Your task to perform on an android device: turn smart compose on in the gmail app Image 0: 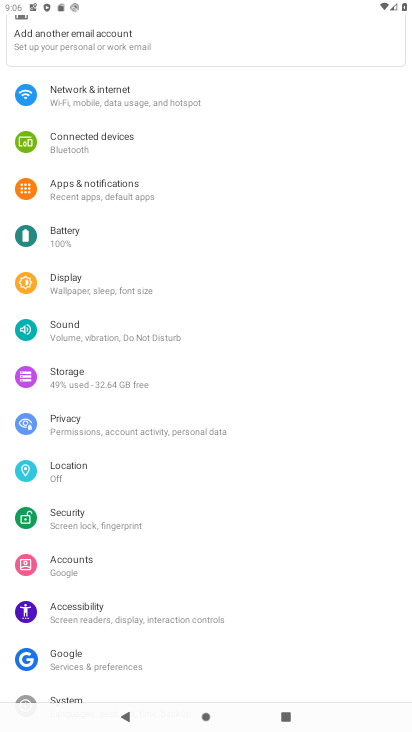
Step 0: press home button
Your task to perform on an android device: turn smart compose on in the gmail app Image 1: 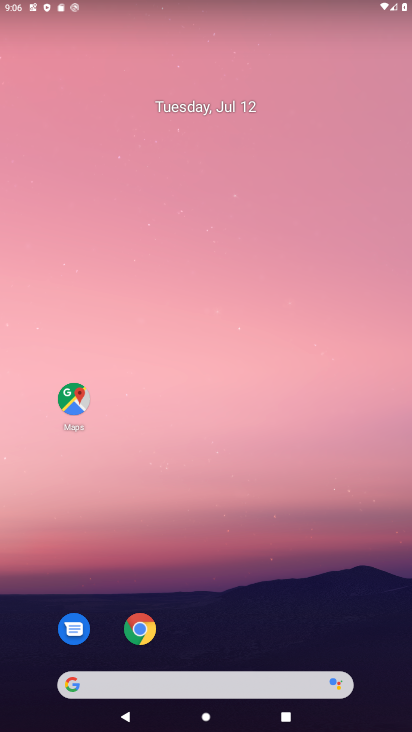
Step 1: drag from (172, 684) to (227, 147)
Your task to perform on an android device: turn smart compose on in the gmail app Image 2: 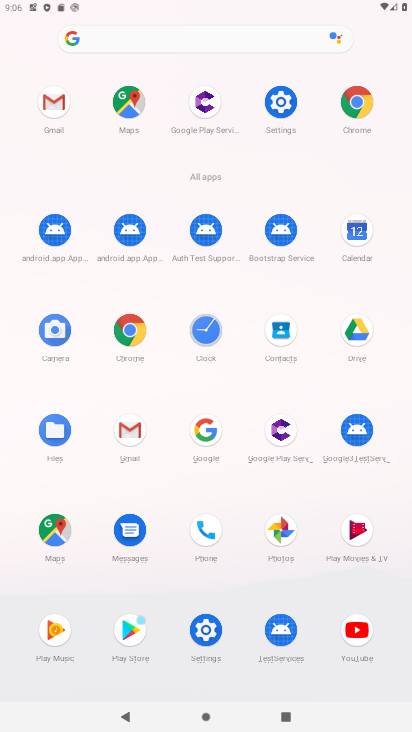
Step 2: click (126, 433)
Your task to perform on an android device: turn smart compose on in the gmail app Image 3: 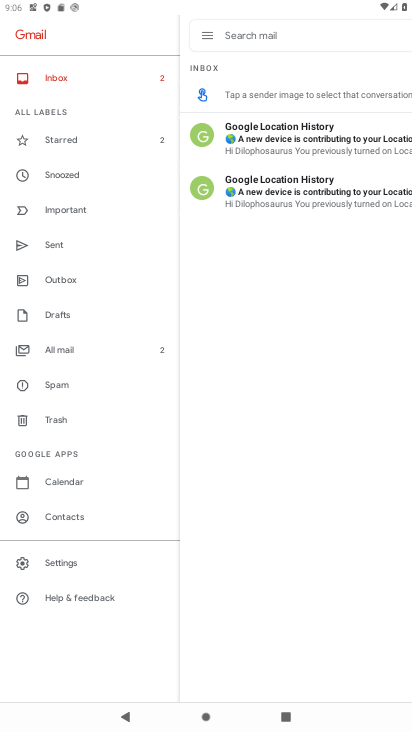
Step 3: click (78, 557)
Your task to perform on an android device: turn smart compose on in the gmail app Image 4: 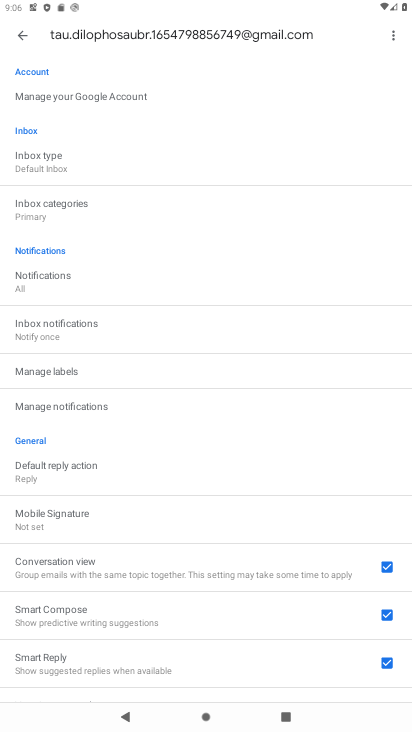
Step 4: task complete